Your task to perform on an android device: Go to Yahoo.com Image 0: 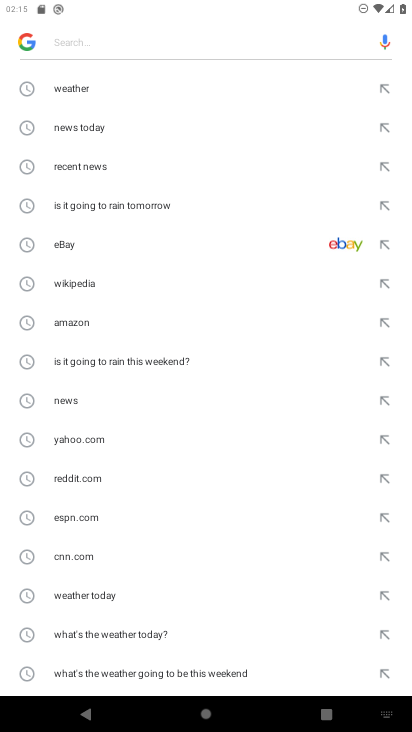
Step 0: press home button
Your task to perform on an android device: Go to Yahoo.com Image 1: 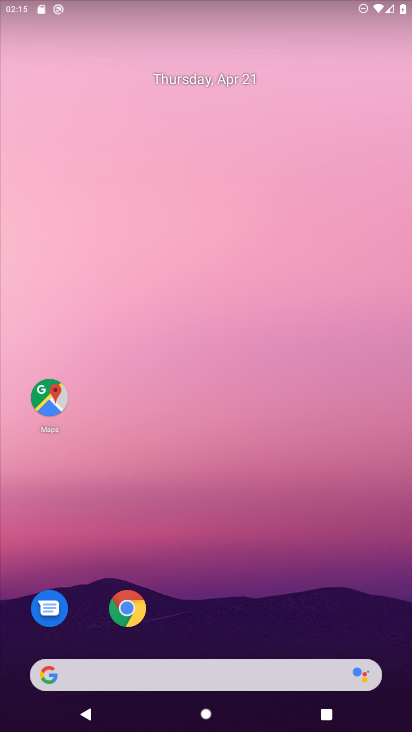
Step 1: drag from (265, 595) to (277, 219)
Your task to perform on an android device: Go to Yahoo.com Image 2: 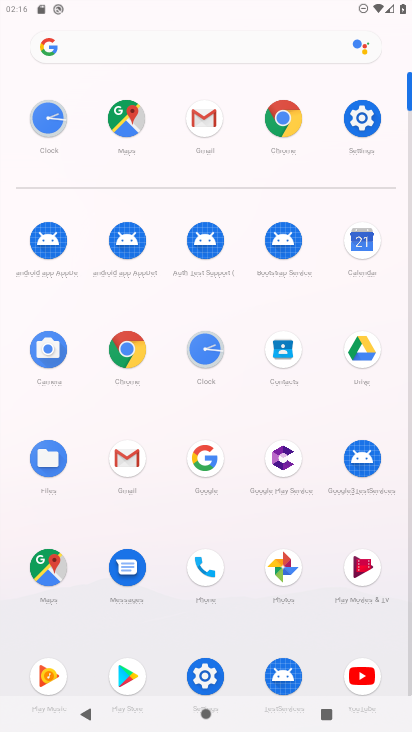
Step 2: click (283, 109)
Your task to perform on an android device: Go to Yahoo.com Image 3: 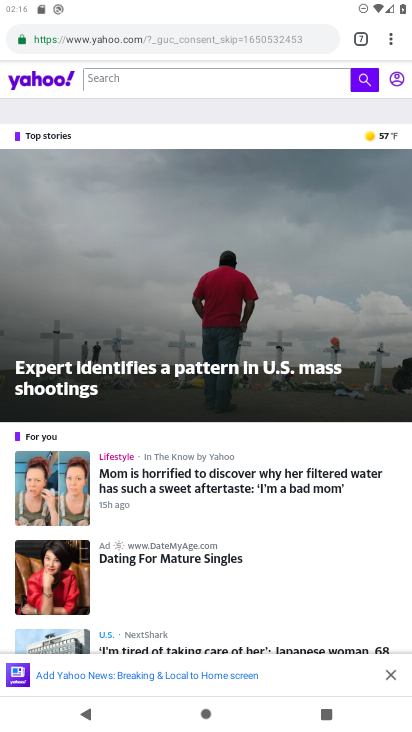
Step 3: task complete